Your task to perform on an android device: allow notifications from all sites in the chrome app Image 0: 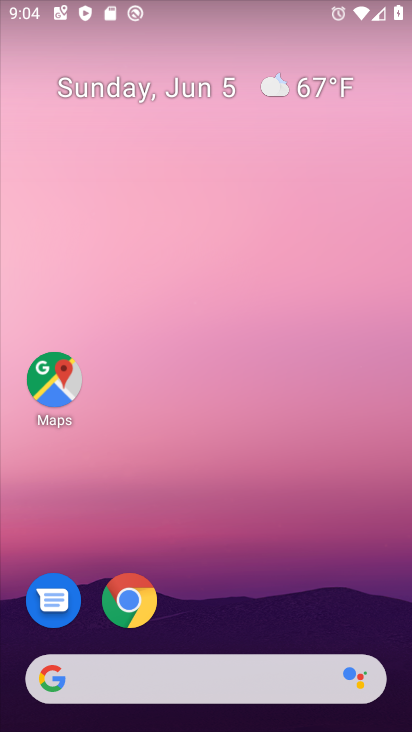
Step 0: drag from (390, 637) to (242, 42)
Your task to perform on an android device: allow notifications from all sites in the chrome app Image 1: 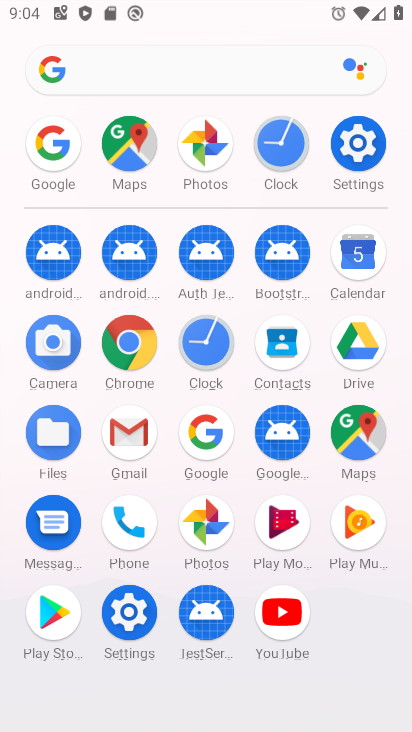
Step 1: click (125, 356)
Your task to perform on an android device: allow notifications from all sites in the chrome app Image 2: 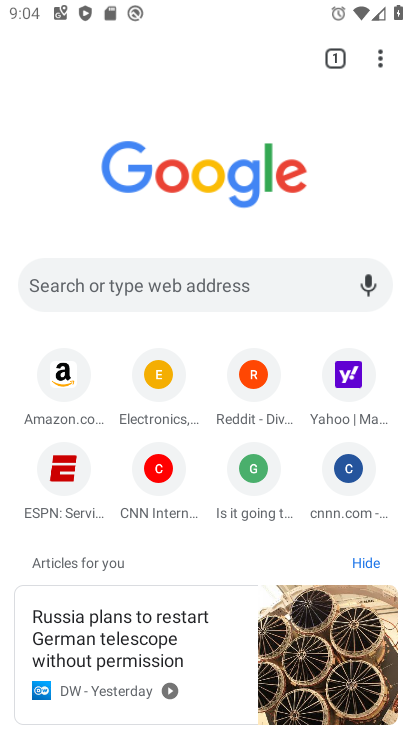
Step 2: click (382, 51)
Your task to perform on an android device: allow notifications from all sites in the chrome app Image 3: 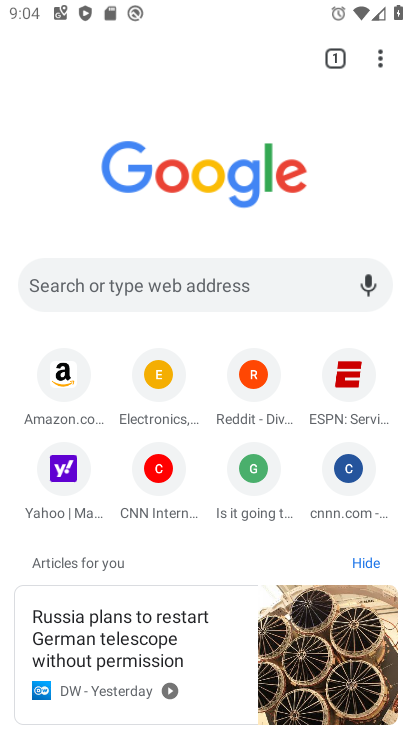
Step 3: click (385, 49)
Your task to perform on an android device: allow notifications from all sites in the chrome app Image 4: 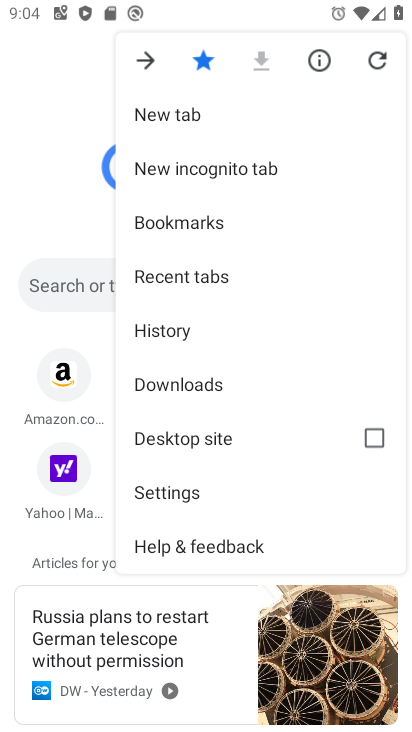
Step 4: click (160, 486)
Your task to perform on an android device: allow notifications from all sites in the chrome app Image 5: 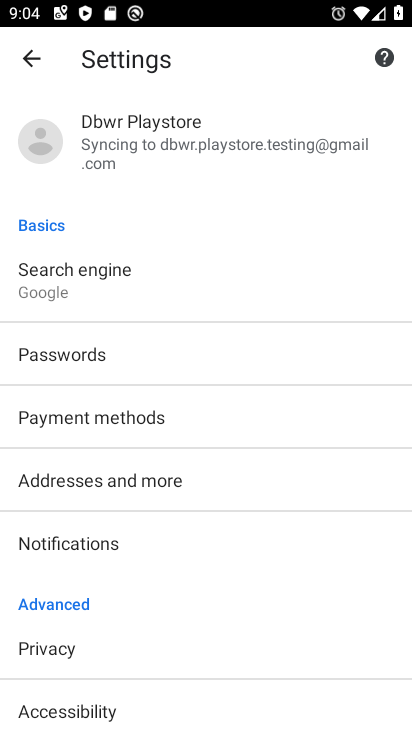
Step 5: drag from (110, 707) to (166, 446)
Your task to perform on an android device: allow notifications from all sites in the chrome app Image 6: 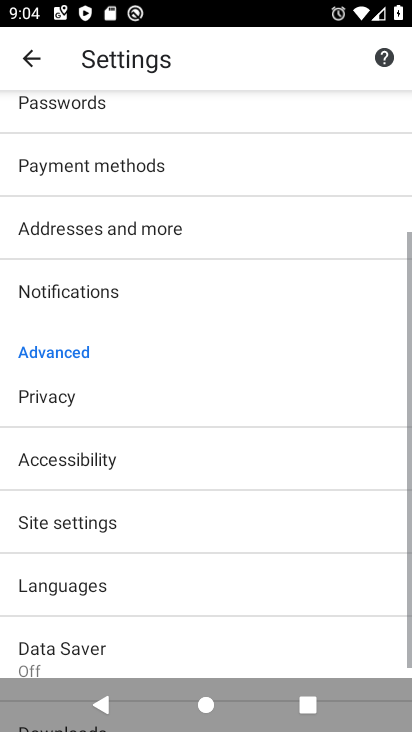
Step 6: click (166, 427)
Your task to perform on an android device: allow notifications from all sites in the chrome app Image 7: 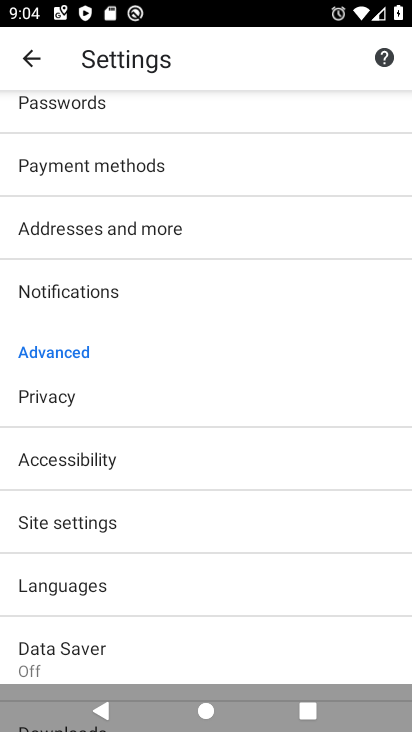
Step 7: click (117, 305)
Your task to perform on an android device: allow notifications from all sites in the chrome app Image 8: 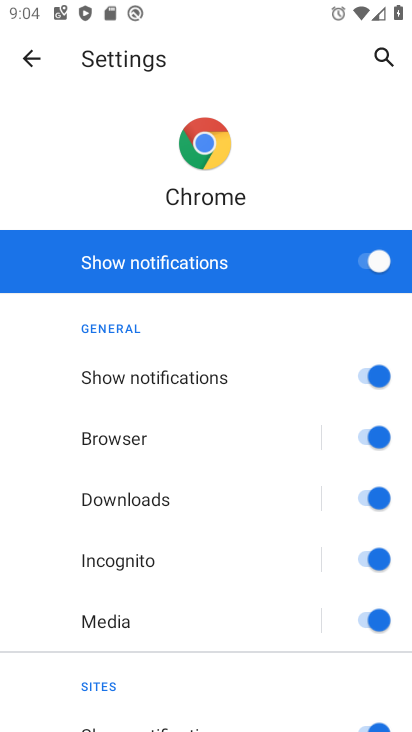
Step 8: task complete